Your task to perform on an android device: Go to display settings Image 0: 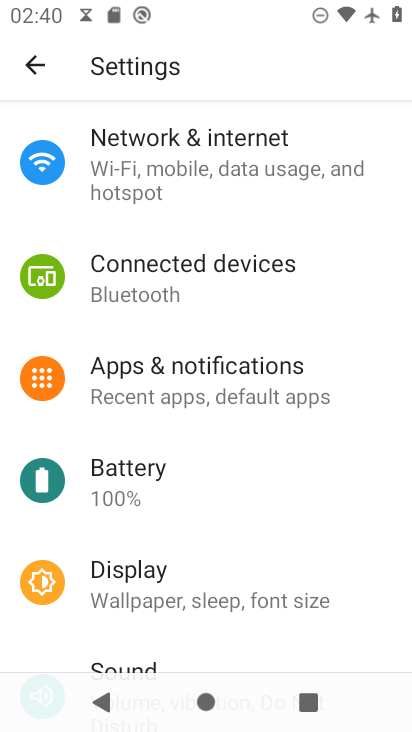
Step 0: press home button
Your task to perform on an android device: Go to display settings Image 1: 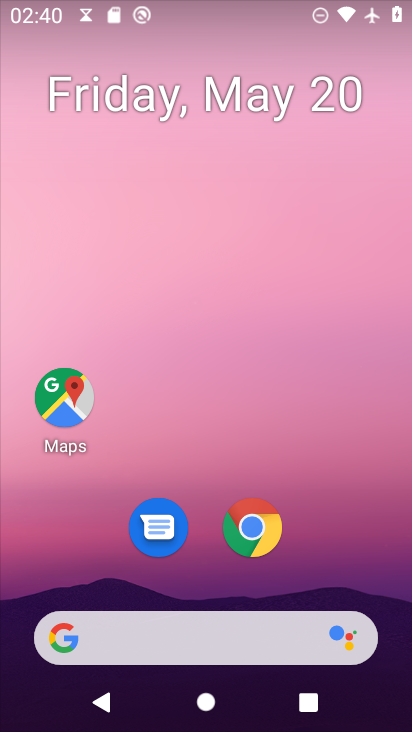
Step 1: drag from (171, 633) to (276, 162)
Your task to perform on an android device: Go to display settings Image 2: 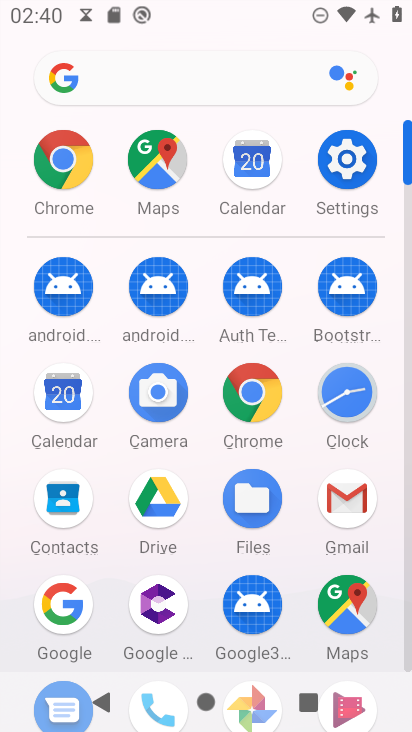
Step 2: click (340, 174)
Your task to perform on an android device: Go to display settings Image 3: 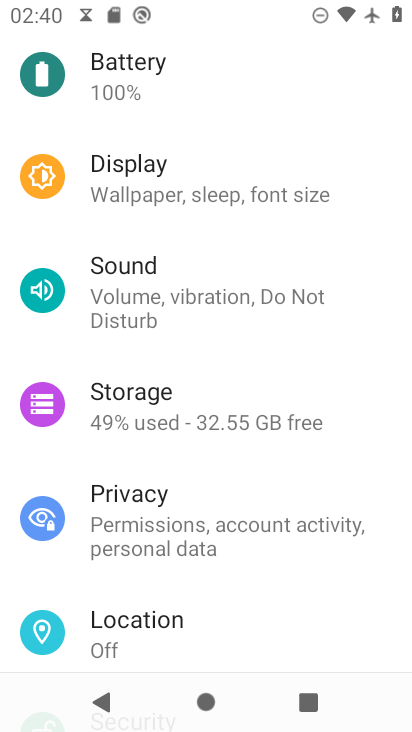
Step 3: click (135, 175)
Your task to perform on an android device: Go to display settings Image 4: 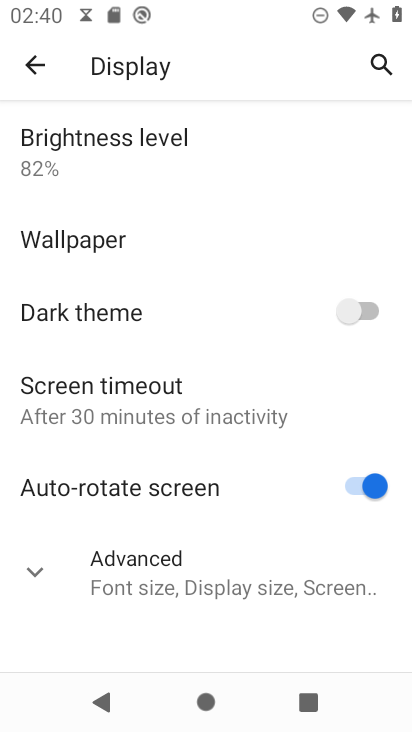
Step 4: task complete